Your task to perform on an android device: Open network settings Image 0: 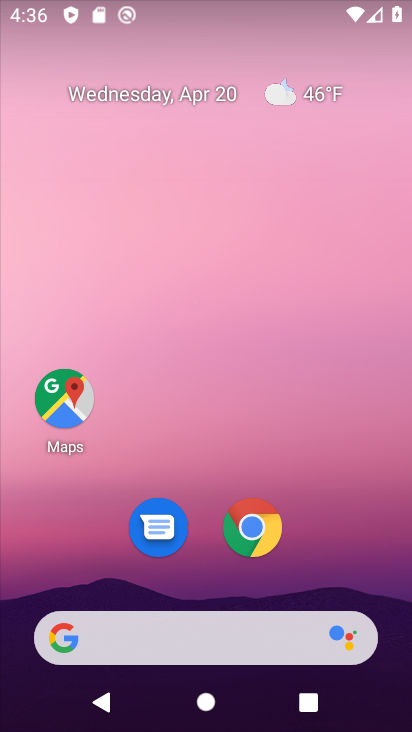
Step 0: drag from (149, 590) to (269, 206)
Your task to perform on an android device: Open network settings Image 1: 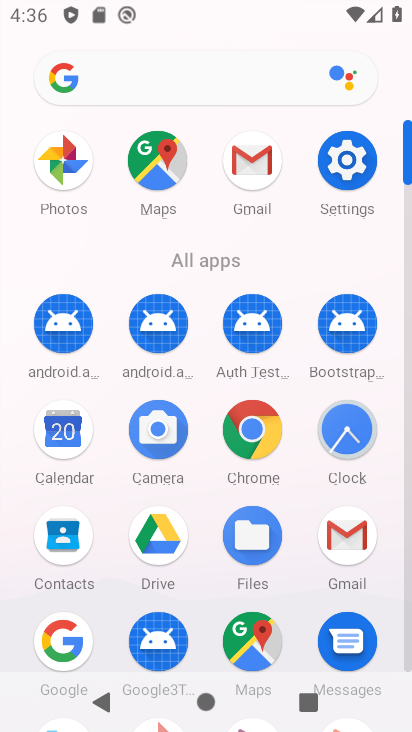
Step 1: drag from (295, 508) to (320, 402)
Your task to perform on an android device: Open network settings Image 2: 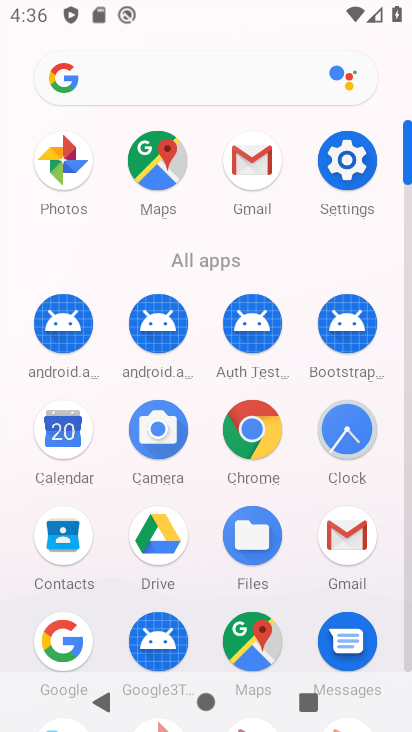
Step 2: click (344, 156)
Your task to perform on an android device: Open network settings Image 3: 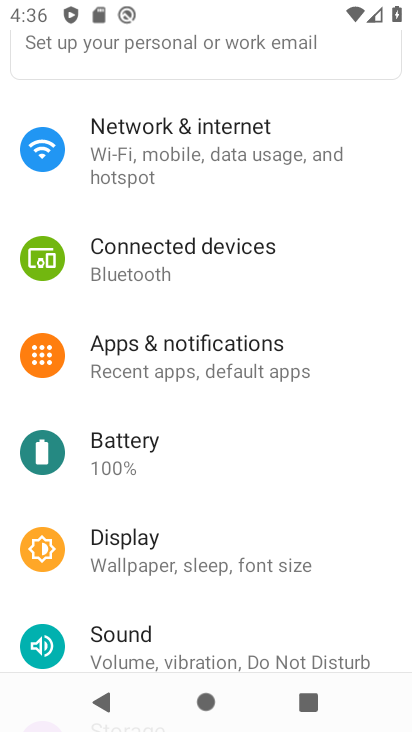
Step 3: click (180, 155)
Your task to perform on an android device: Open network settings Image 4: 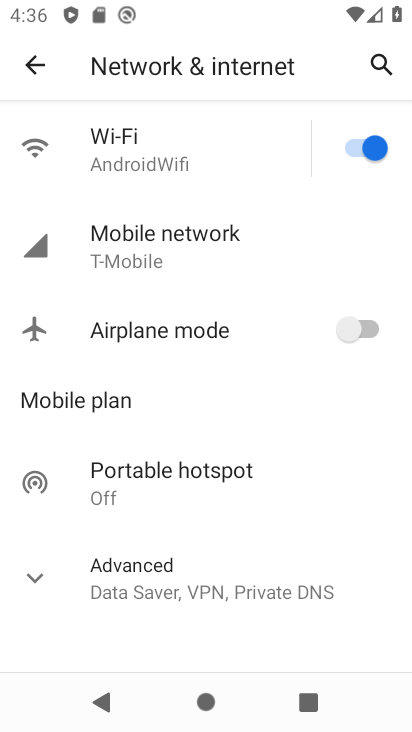
Step 4: click (159, 257)
Your task to perform on an android device: Open network settings Image 5: 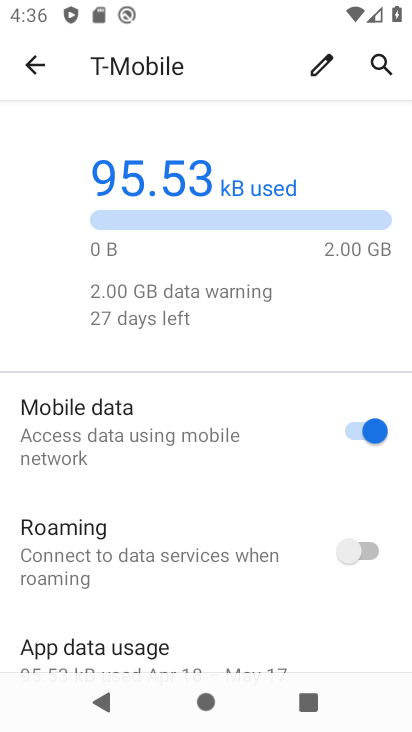
Step 5: task complete